Your task to perform on an android device: Open wifi settings Image 0: 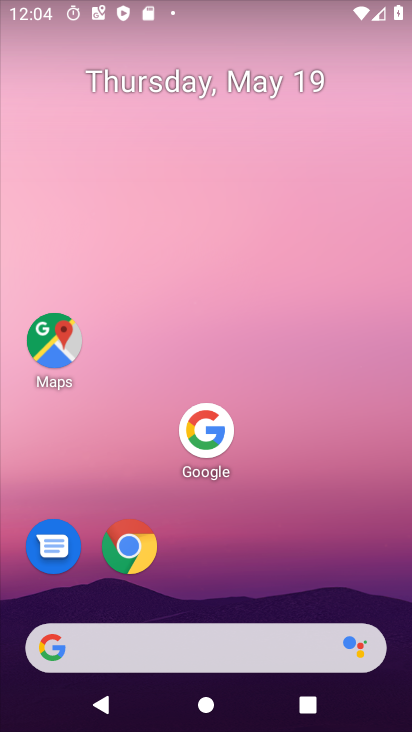
Step 0: drag from (254, 545) to (247, 44)
Your task to perform on an android device: Open wifi settings Image 1: 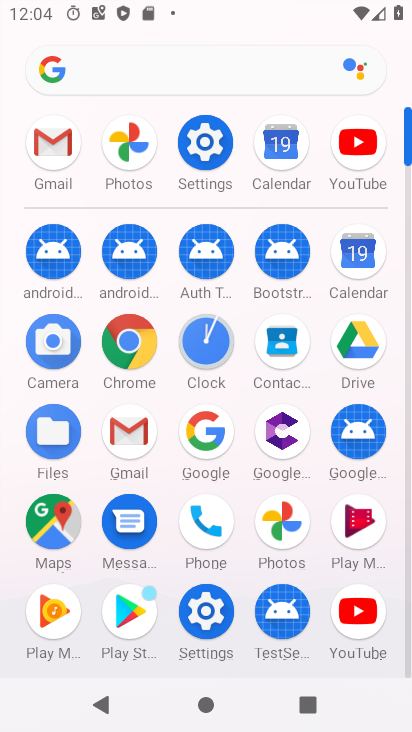
Step 1: click (207, 144)
Your task to perform on an android device: Open wifi settings Image 2: 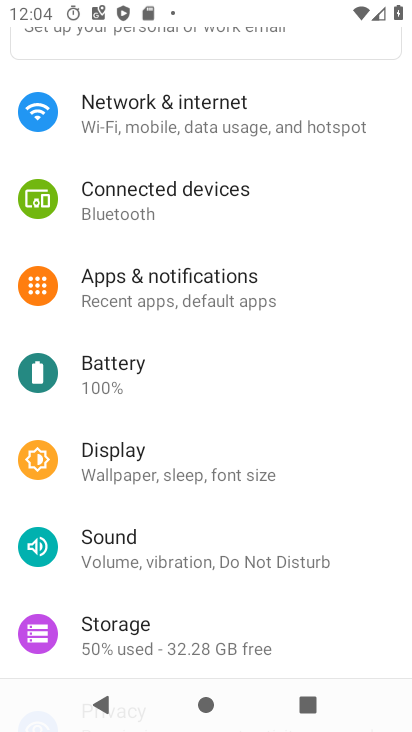
Step 2: click (176, 121)
Your task to perform on an android device: Open wifi settings Image 3: 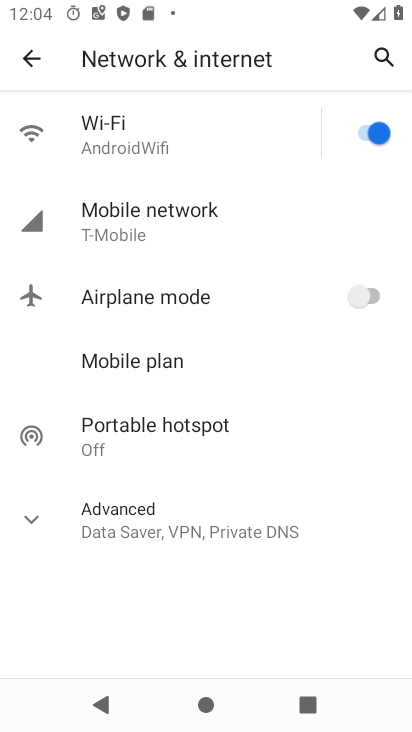
Step 3: click (165, 134)
Your task to perform on an android device: Open wifi settings Image 4: 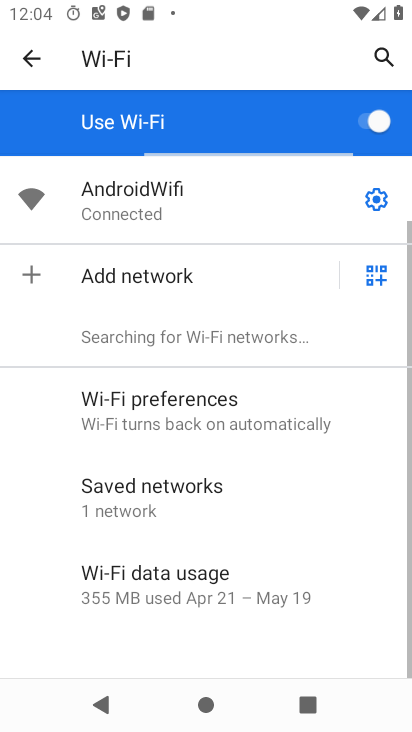
Step 4: click (146, 206)
Your task to perform on an android device: Open wifi settings Image 5: 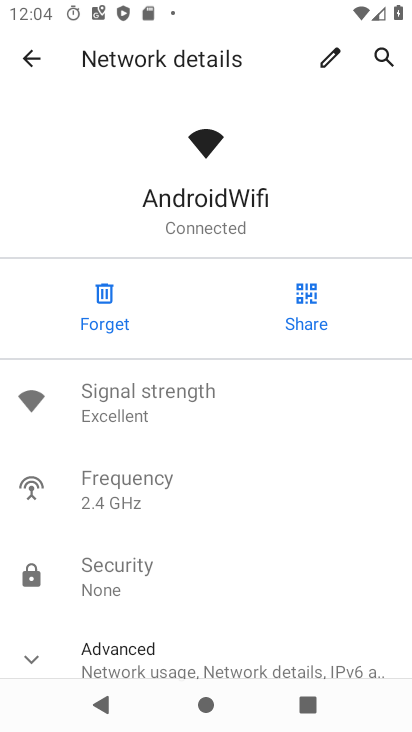
Step 5: task complete